Your task to perform on an android device: check battery use Image 0: 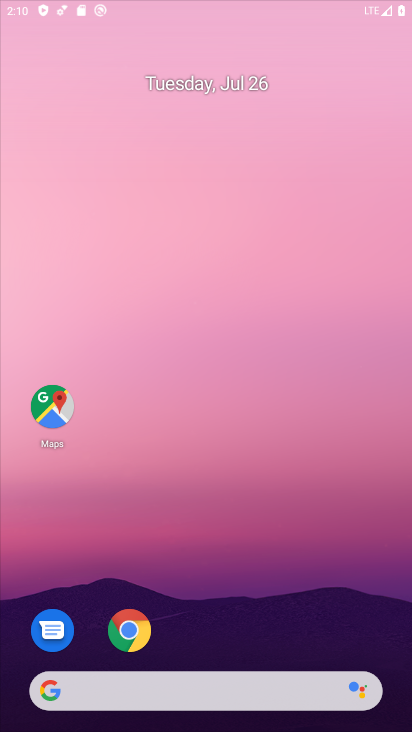
Step 0: drag from (281, 630) to (256, 279)
Your task to perform on an android device: check battery use Image 1: 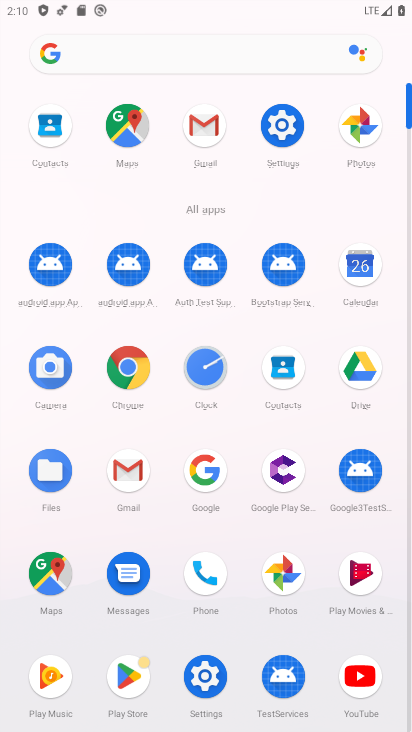
Step 1: drag from (193, 602) to (180, 399)
Your task to perform on an android device: check battery use Image 2: 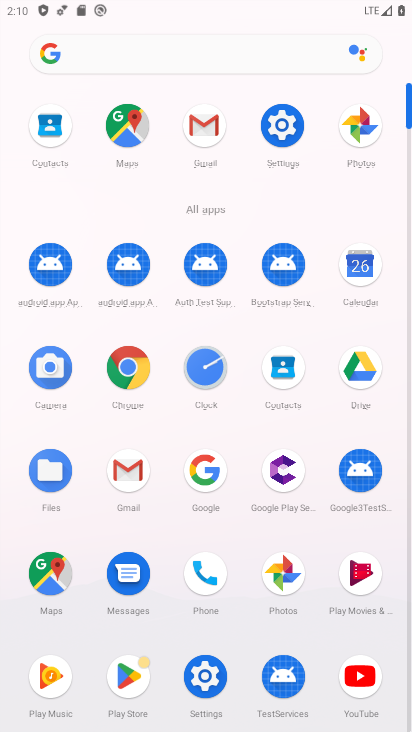
Step 2: click (283, 130)
Your task to perform on an android device: check battery use Image 3: 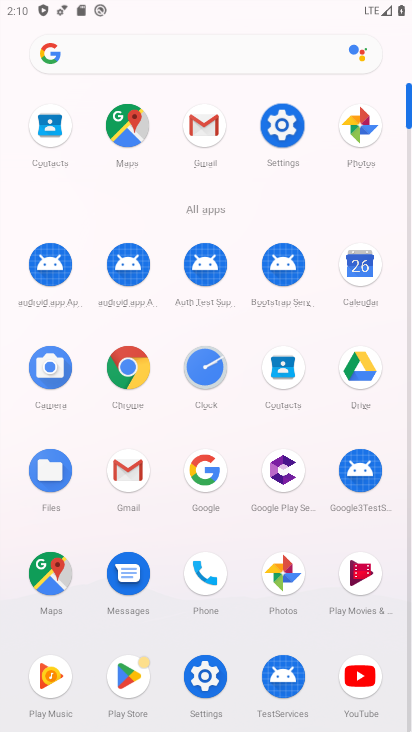
Step 3: click (282, 124)
Your task to perform on an android device: check battery use Image 4: 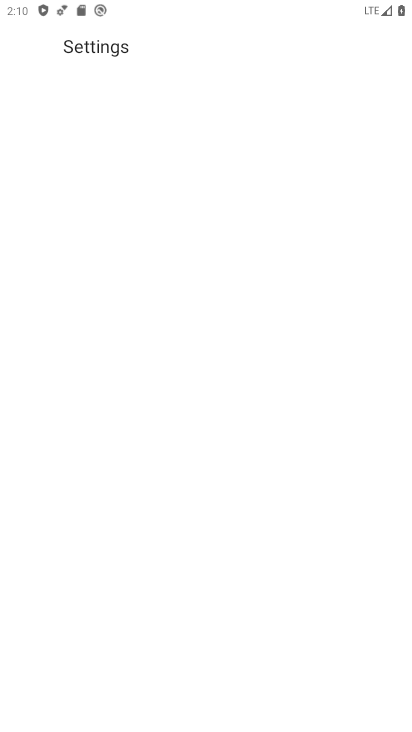
Step 4: click (288, 121)
Your task to perform on an android device: check battery use Image 5: 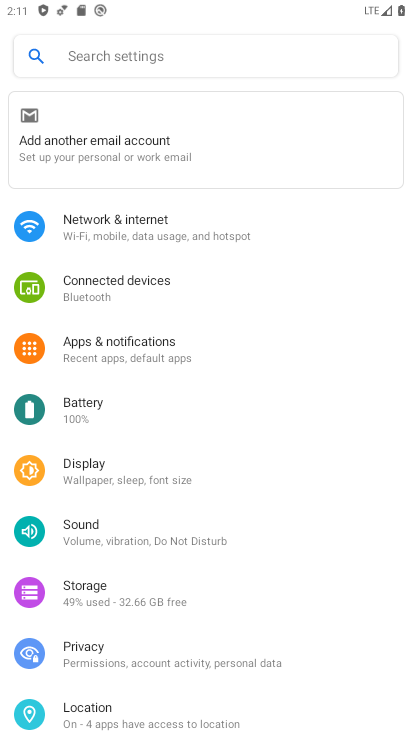
Step 5: click (72, 423)
Your task to perform on an android device: check battery use Image 6: 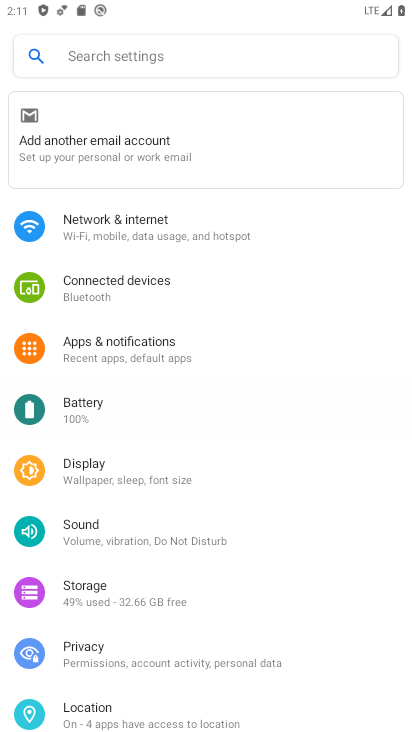
Step 6: click (61, 415)
Your task to perform on an android device: check battery use Image 7: 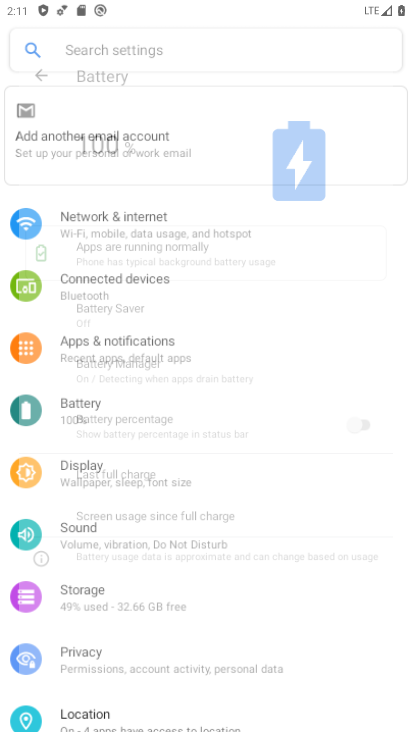
Step 7: click (71, 407)
Your task to perform on an android device: check battery use Image 8: 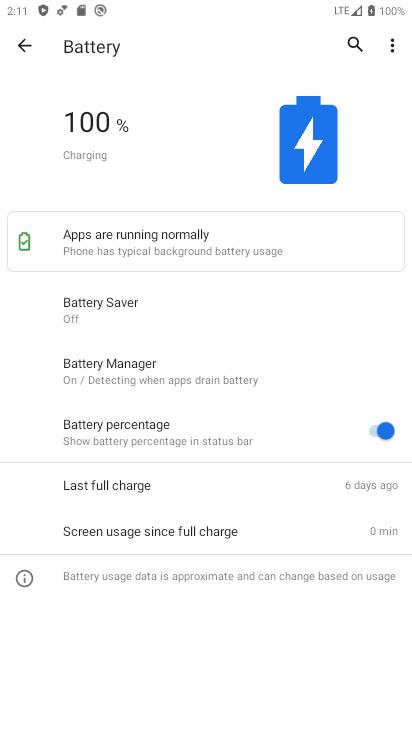
Step 8: task complete